Your task to perform on an android device: Open the Play Movies app and select the watchlist tab. Image 0: 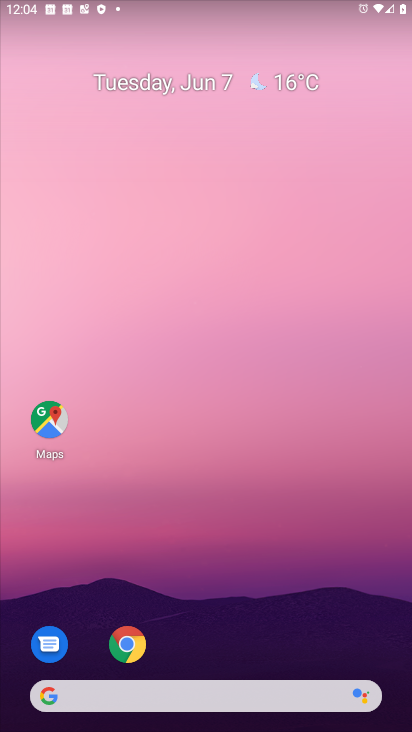
Step 0: drag from (251, 659) to (193, 151)
Your task to perform on an android device: Open the Play Movies app and select the watchlist tab. Image 1: 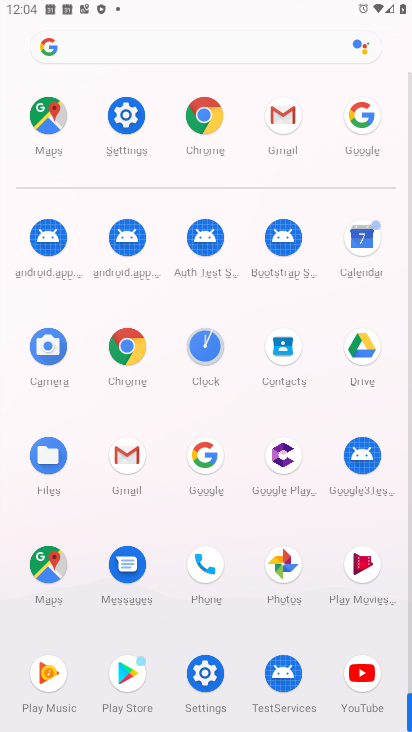
Step 1: drag from (236, 204) to (242, 33)
Your task to perform on an android device: Open the Play Movies app and select the watchlist tab. Image 2: 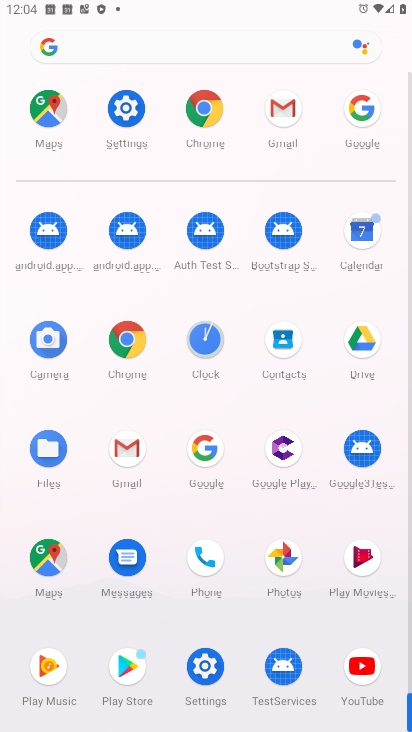
Step 2: click (373, 564)
Your task to perform on an android device: Open the Play Movies app and select the watchlist tab. Image 3: 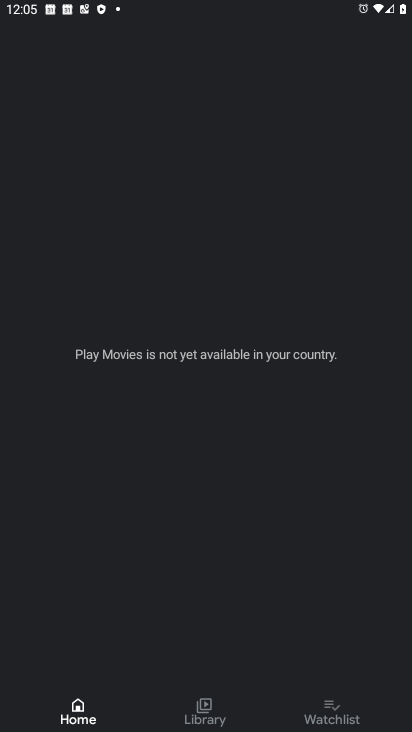
Step 3: click (328, 713)
Your task to perform on an android device: Open the Play Movies app and select the watchlist tab. Image 4: 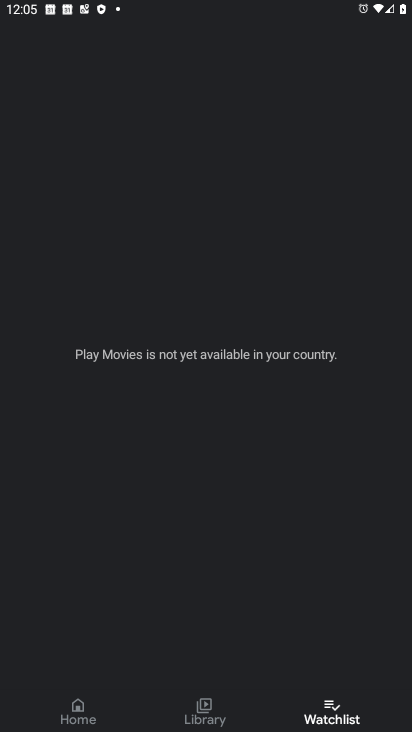
Step 4: task complete